Your task to perform on an android device: See recent photos Image 0: 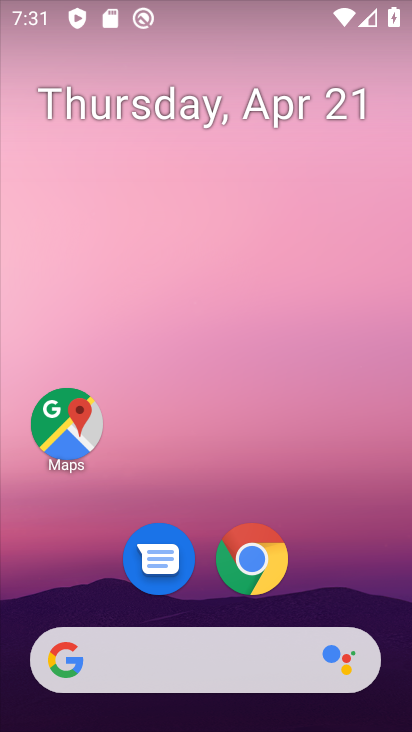
Step 0: drag from (364, 559) to (369, 205)
Your task to perform on an android device: See recent photos Image 1: 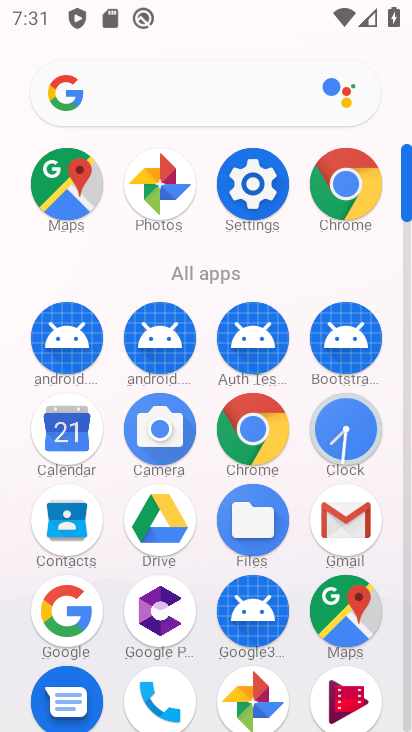
Step 1: drag from (294, 564) to (314, 234)
Your task to perform on an android device: See recent photos Image 2: 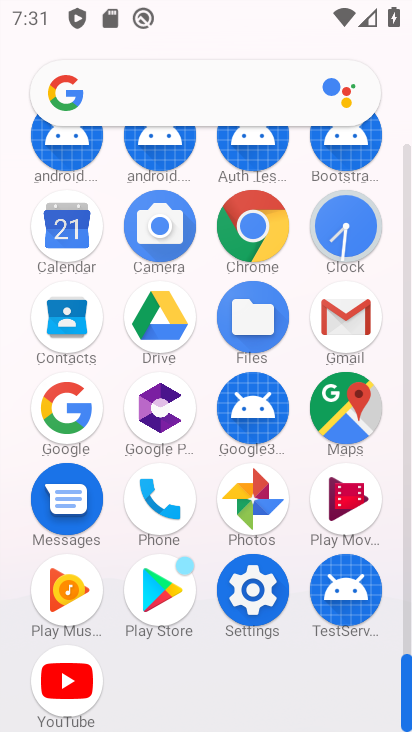
Step 2: click (265, 490)
Your task to perform on an android device: See recent photos Image 3: 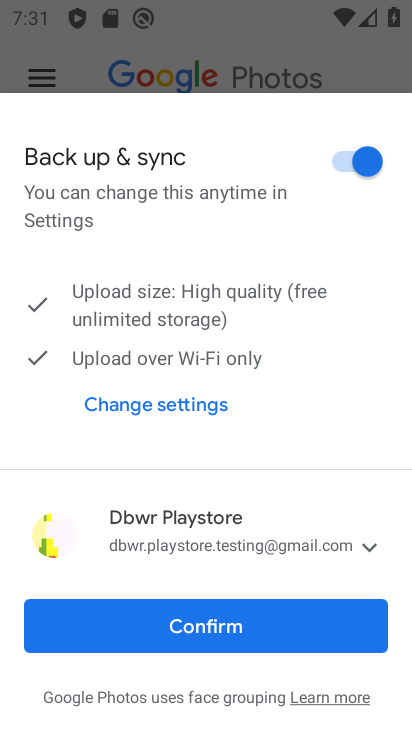
Step 3: click (277, 622)
Your task to perform on an android device: See recent photos Image 4: 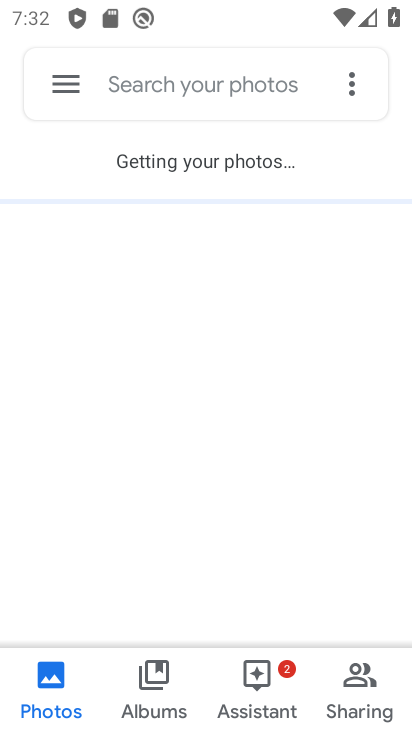
Step 4: click (44, 702)
Your task to perform on an android device: See recent photos Image 5: 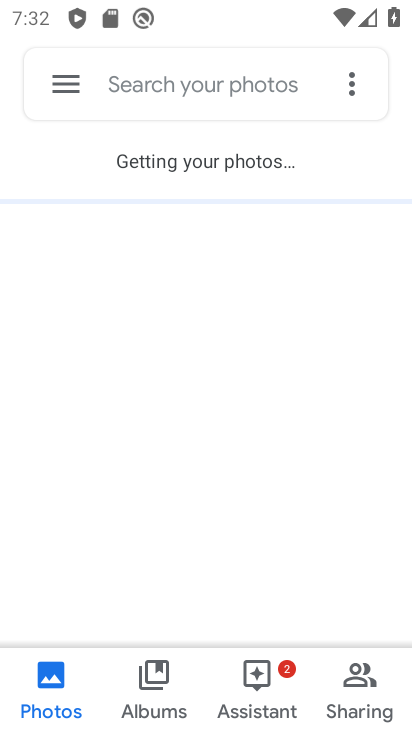
Step 5: click (72, 88)
Your task to perform on an android device: See recent photos Image 6: 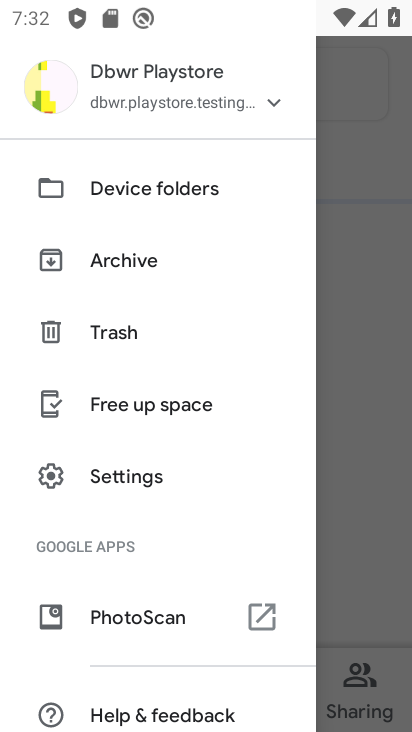
Step 6: click (366, 464)
Your task to perform on an android device: See recent photos Image 7: 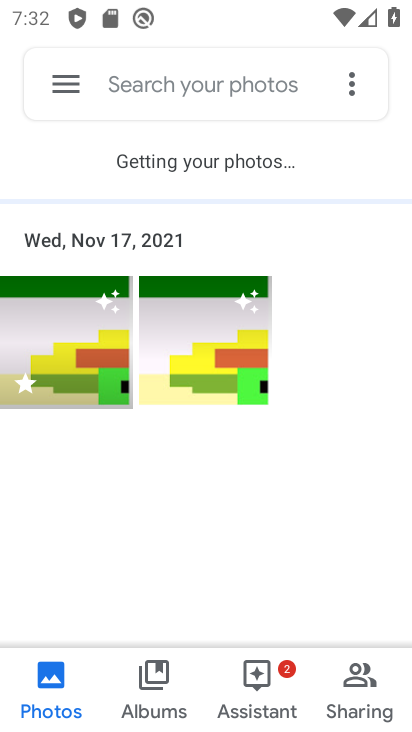
Step 7: task complete